Your task to perform on an android device: change the clock display to digital Image 0: 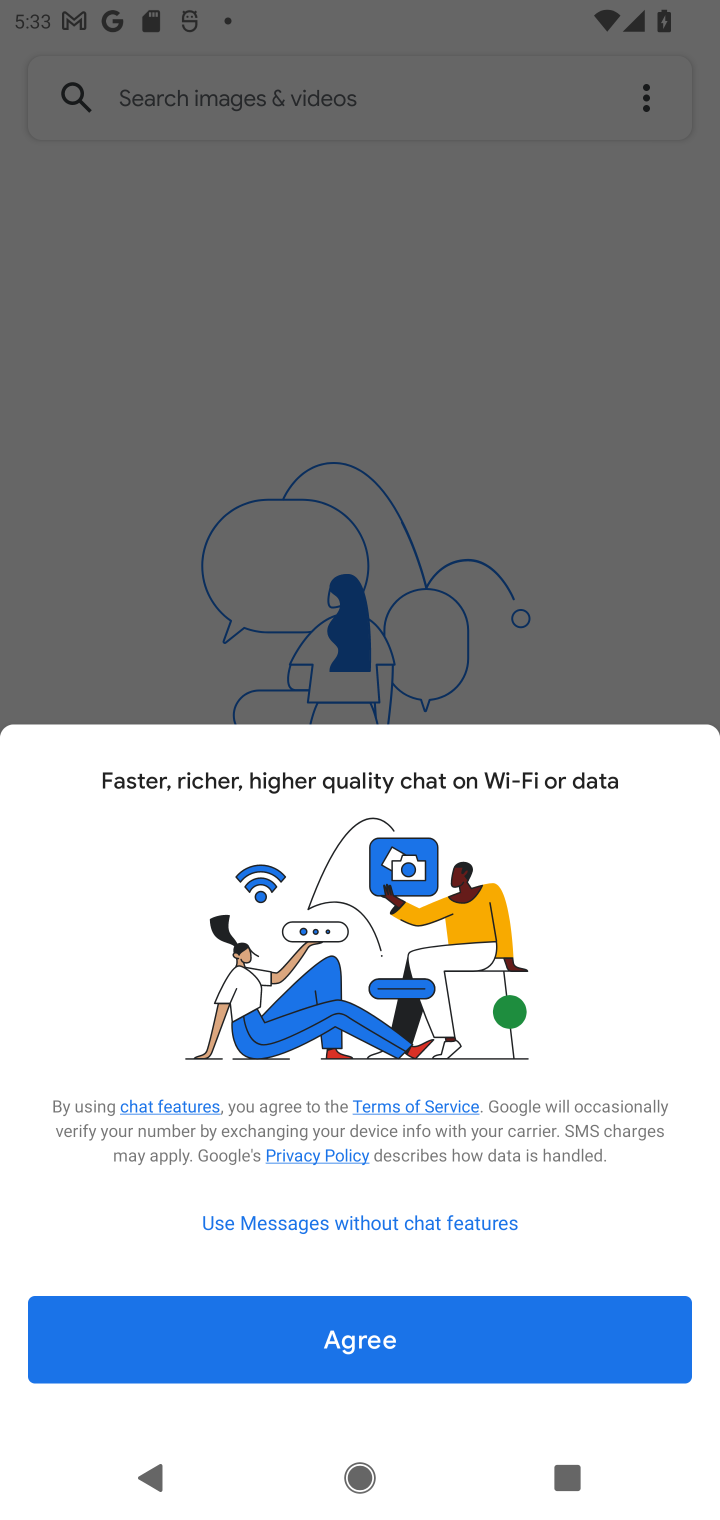
Step 0: press home button
Your task to perform on an android device: change the clock display to digital Image 1: 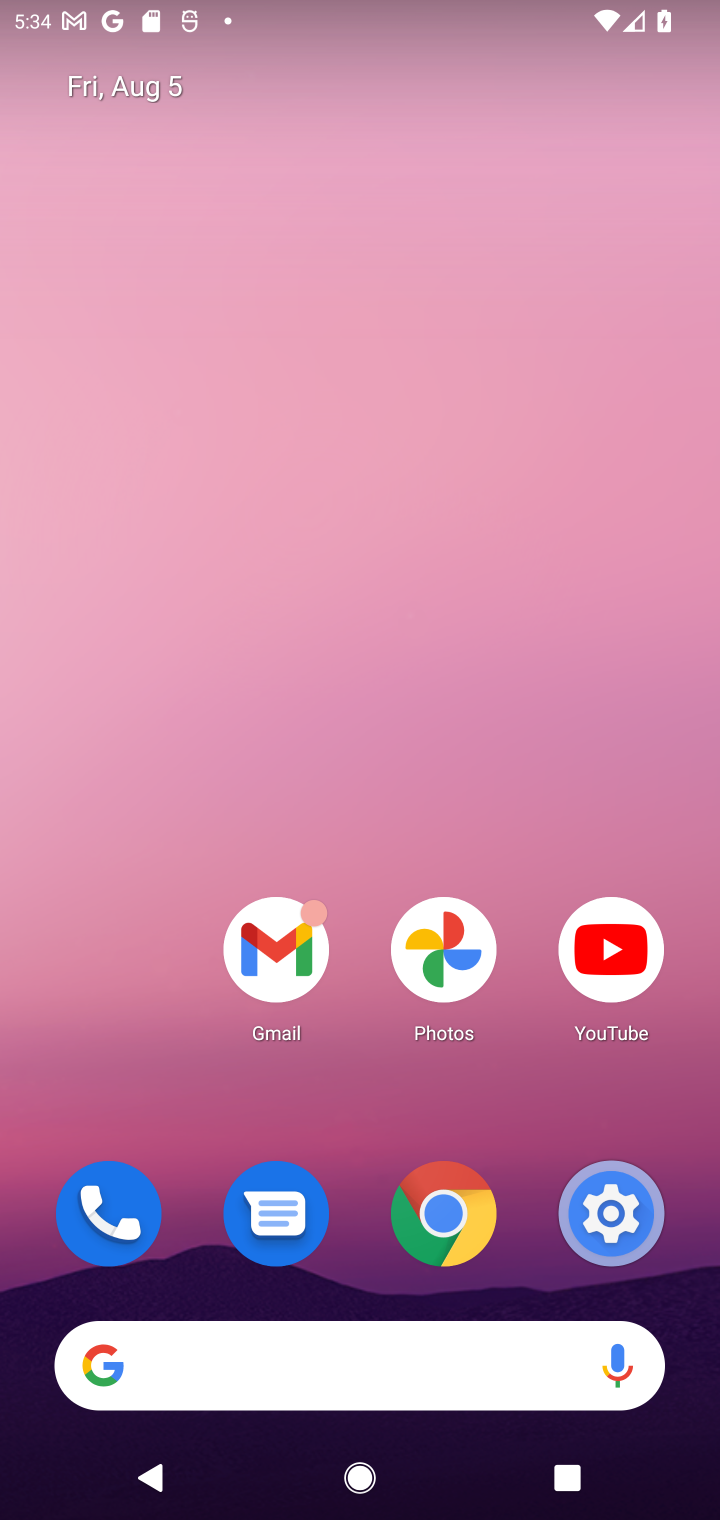
Step 1: drag from (349, 1279) to (380, 263)
Your task to perform on an android device: change the clock display to digital Image 2: 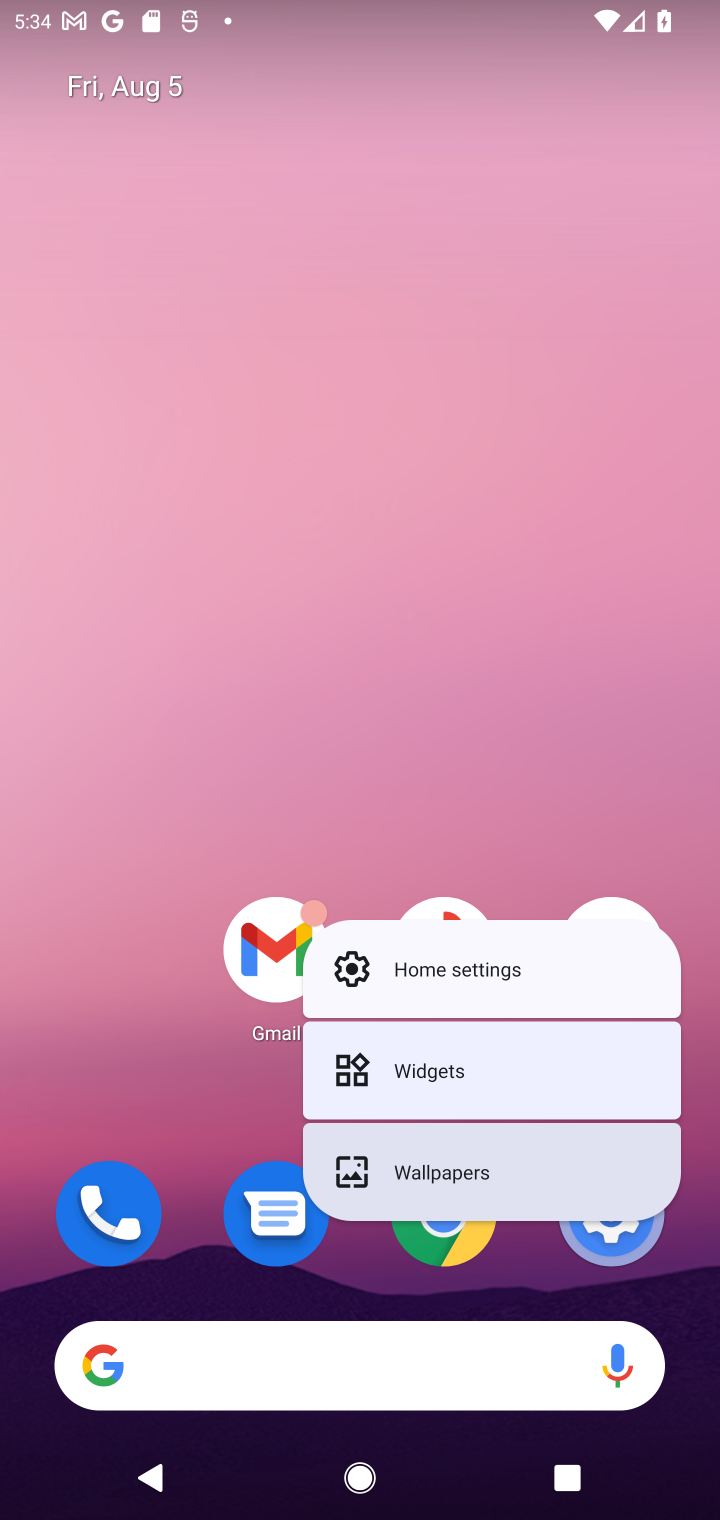
Step 2: click (380, 263)
Your task to perform on an android device: change the clock display to digital Image 3: 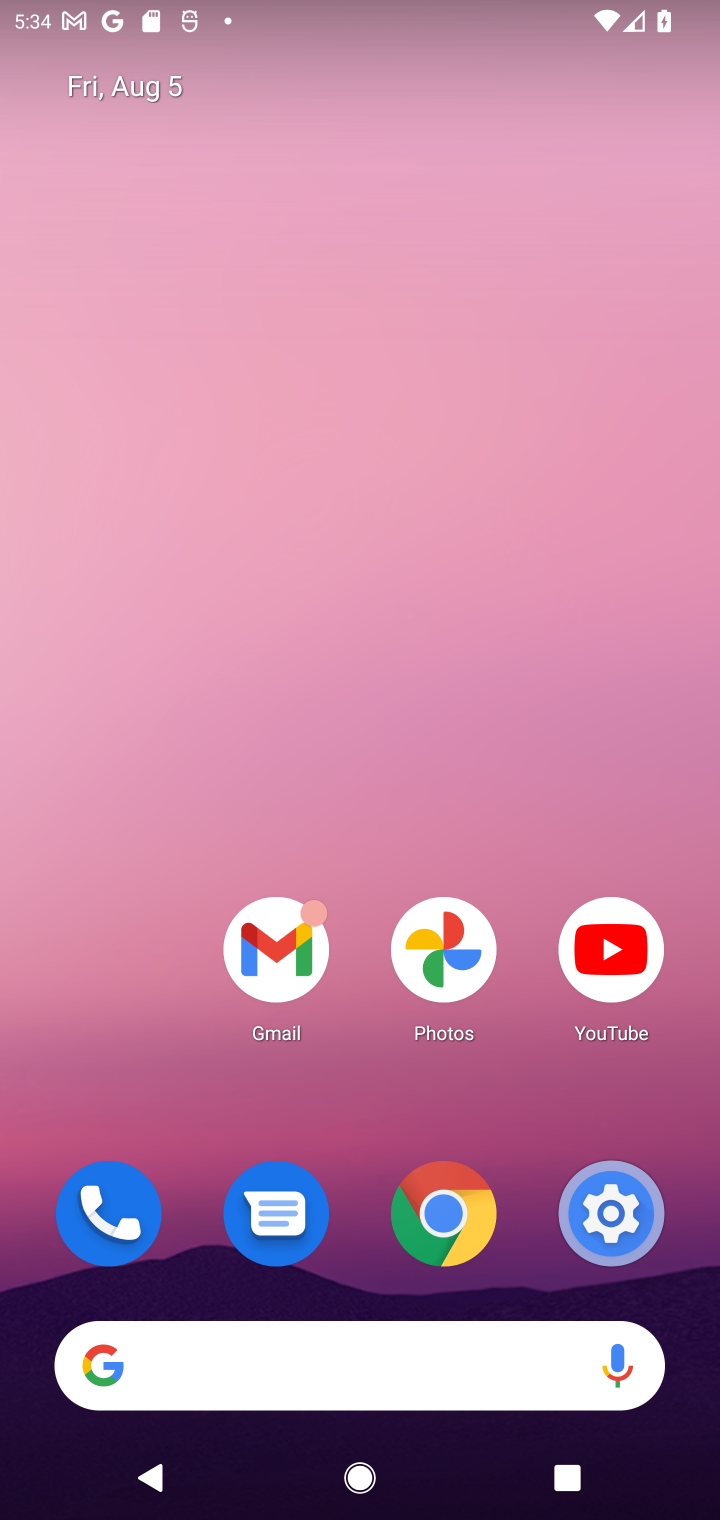
Step 3: drag from (354, 1298) to (338, 85)
Your task to perform on an android device: change the clock display to digital Image 4: 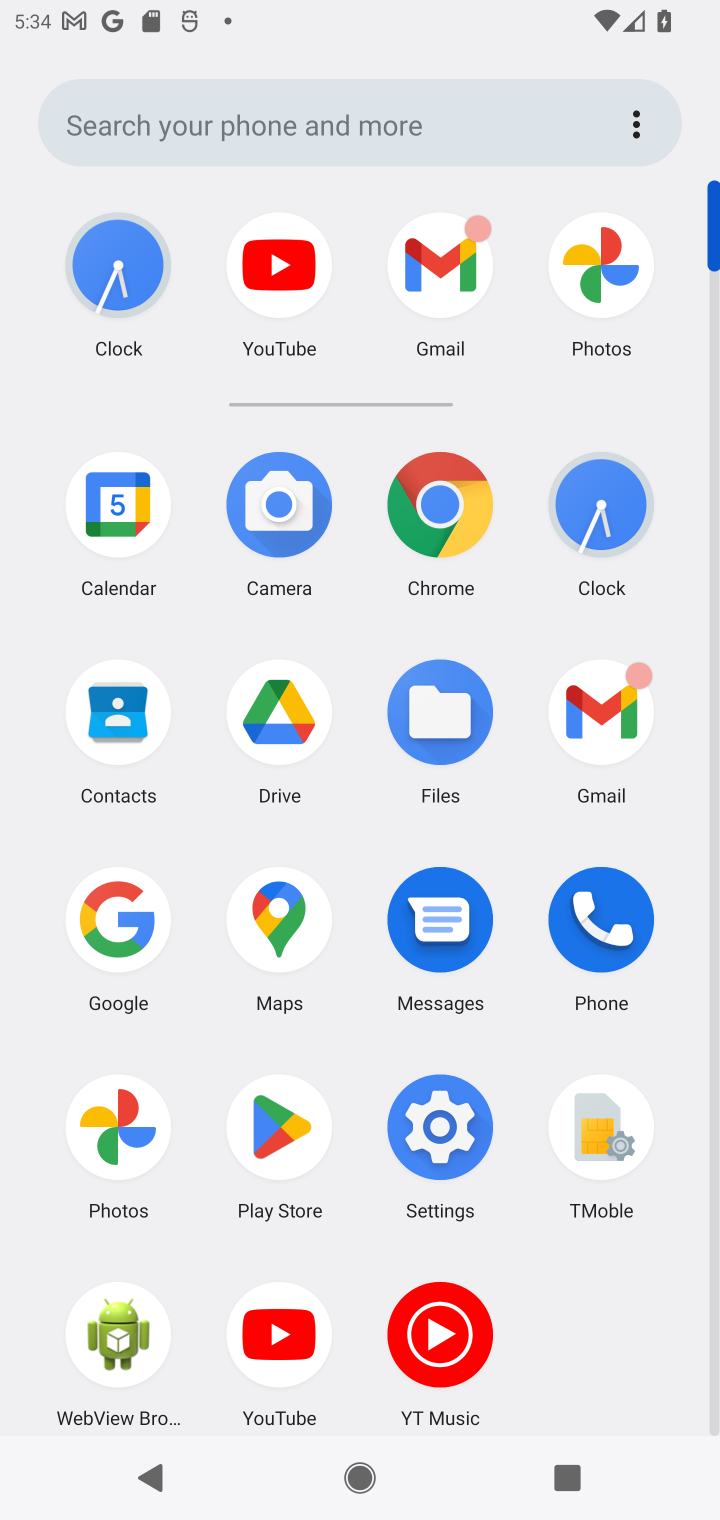
Step 4: click (111, 300)
Your task to perform on an android device: change the clock display to digital Image 5: 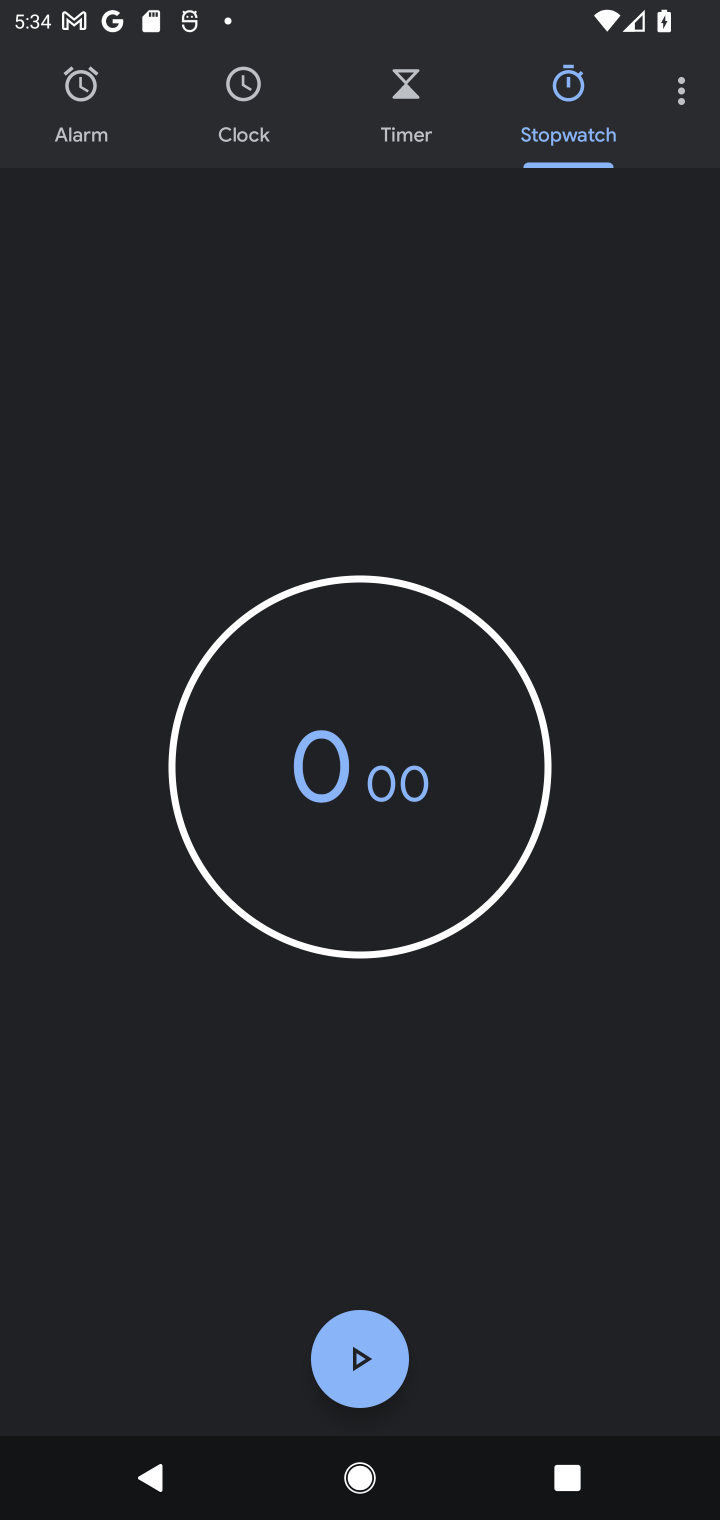
Step 5: click (660, 109)
Your task to perform on an android device: change the clock display to digital Image 6: 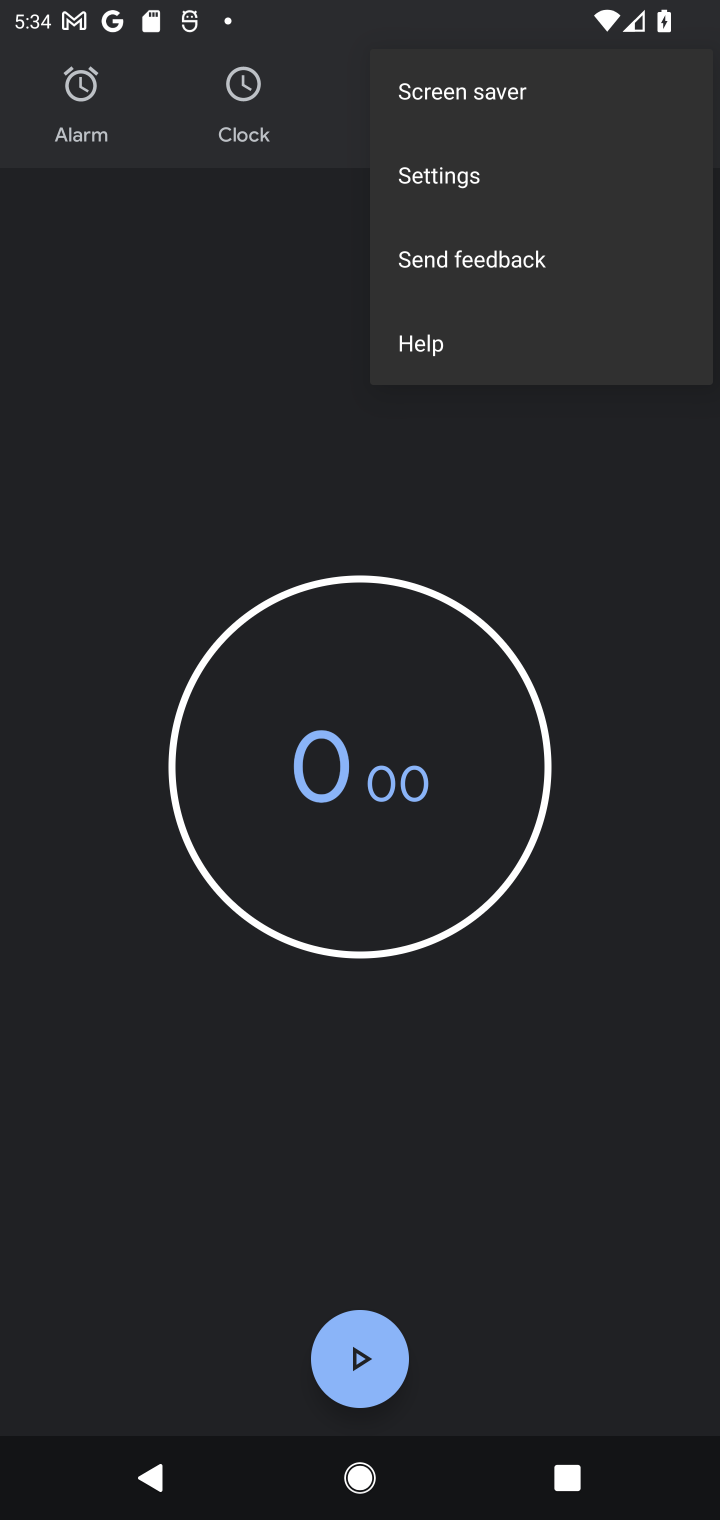
Step 6: click (473, 153)
Your task to perform on an android device: change the clock display to digital Image 7: 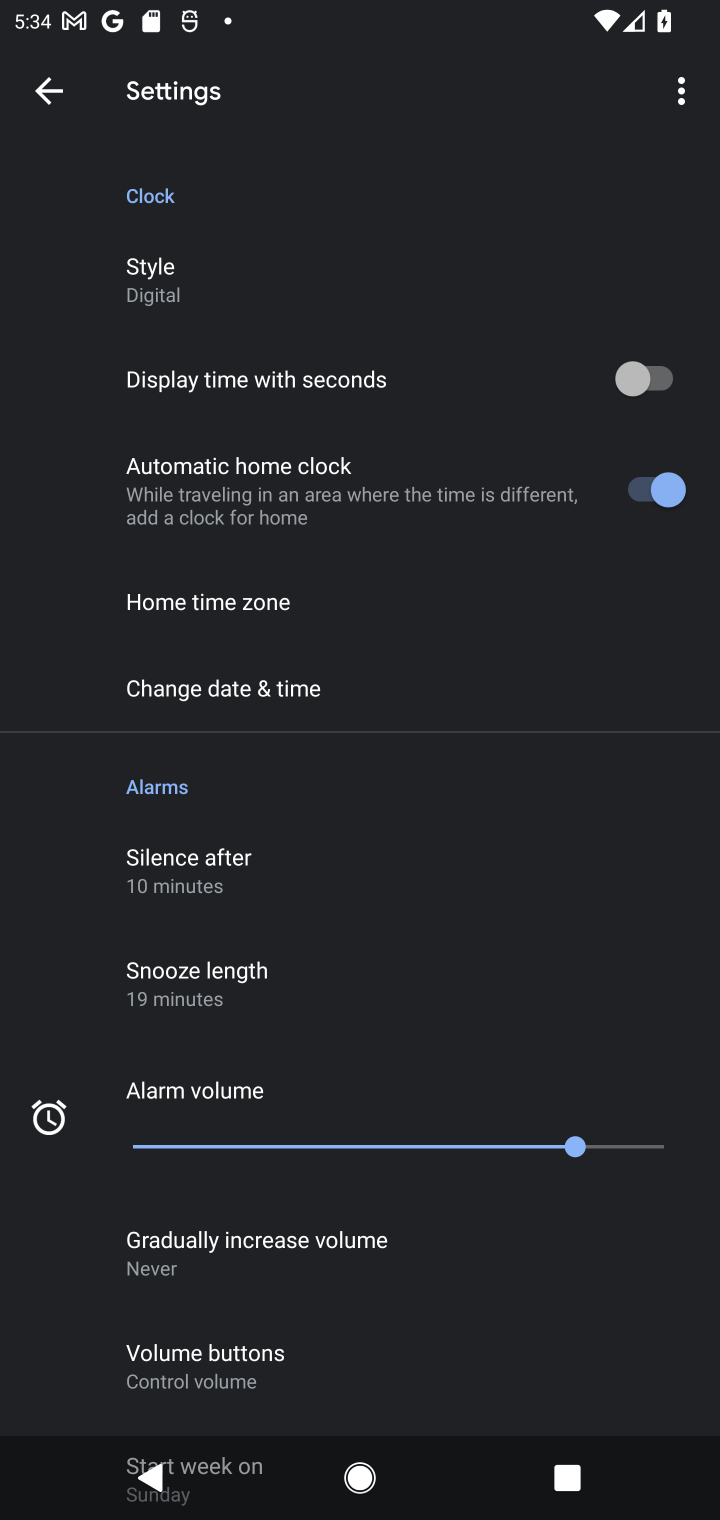
Step 7: task complete